Your task to perform on an android device: Clear the shopping cart on ebay.com. Add "usb-c to usb-a" to the cart on ebay.com, then select checkout. Image 0: 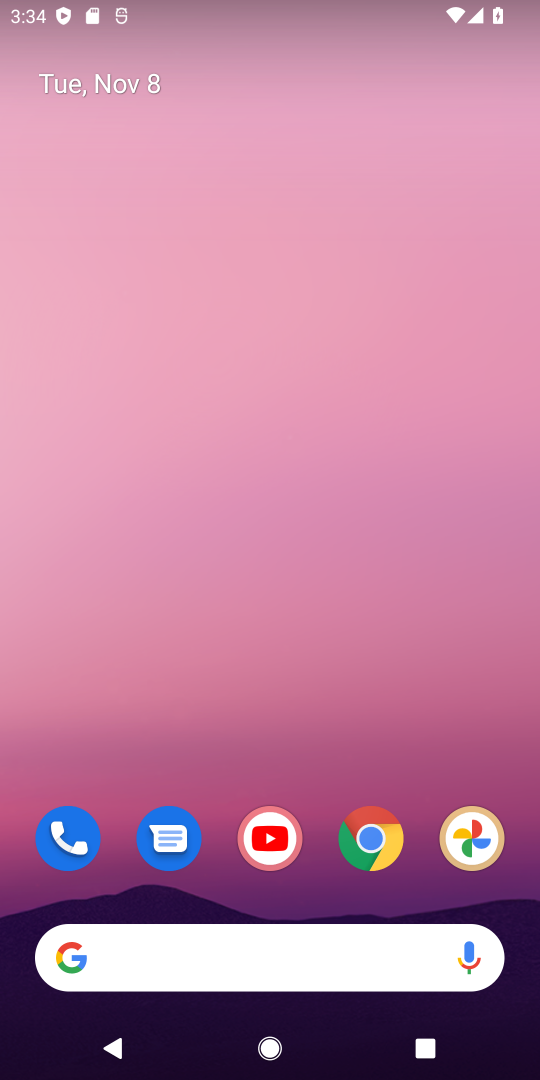
Step 0: drag from (334, 1013) to (211, 88)
Your task to perform on an android device: Clear the shopping cart on ebay.com. Add "usb-c to usb-a" to the cart on ebay.com, then select checkout. Image 1: 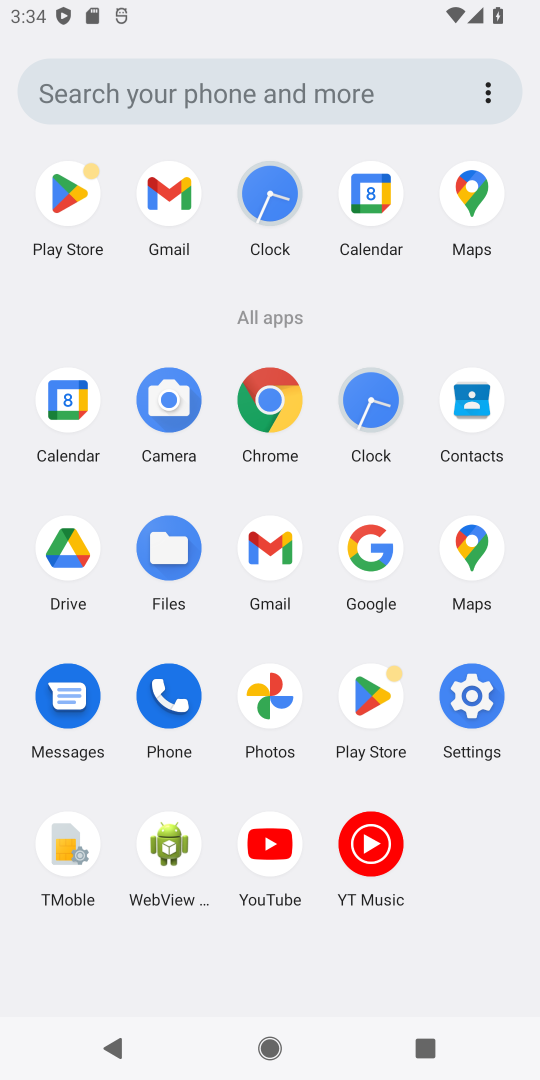
Step 1: click (266, 417)
Your task to perform on an android device: Clear the shopping cart on ebay.com. Add "usb-c to usb-a" to the cart on ebay.com, then select checkout. Image 2: 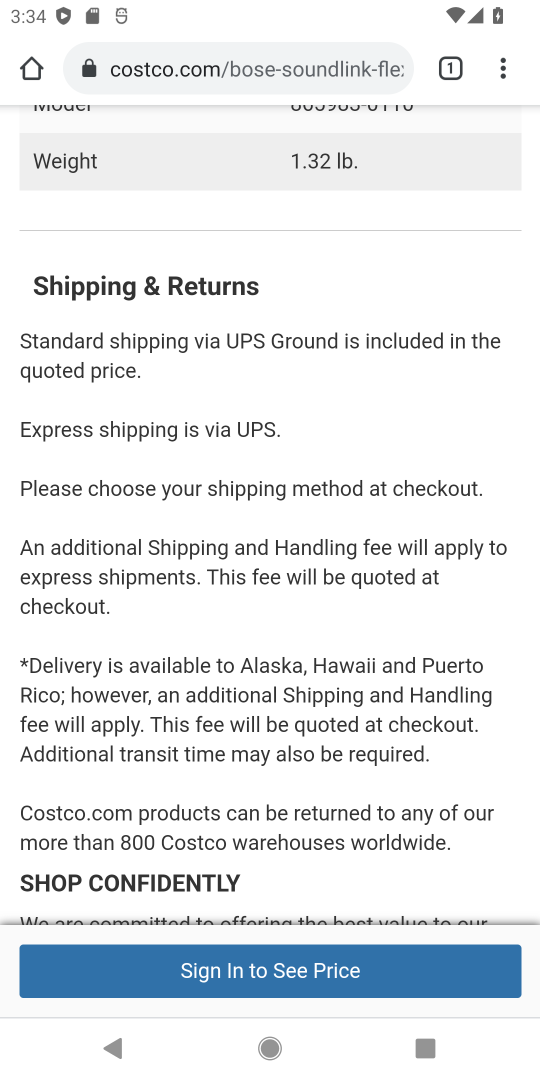
Step 2: click (212, 65)
Your task to perform on an android device: Clear the shopping cart on ebay.com. Add "usb-c to usb-a" to the cart on ebay.com, then select checkout. Image 3: 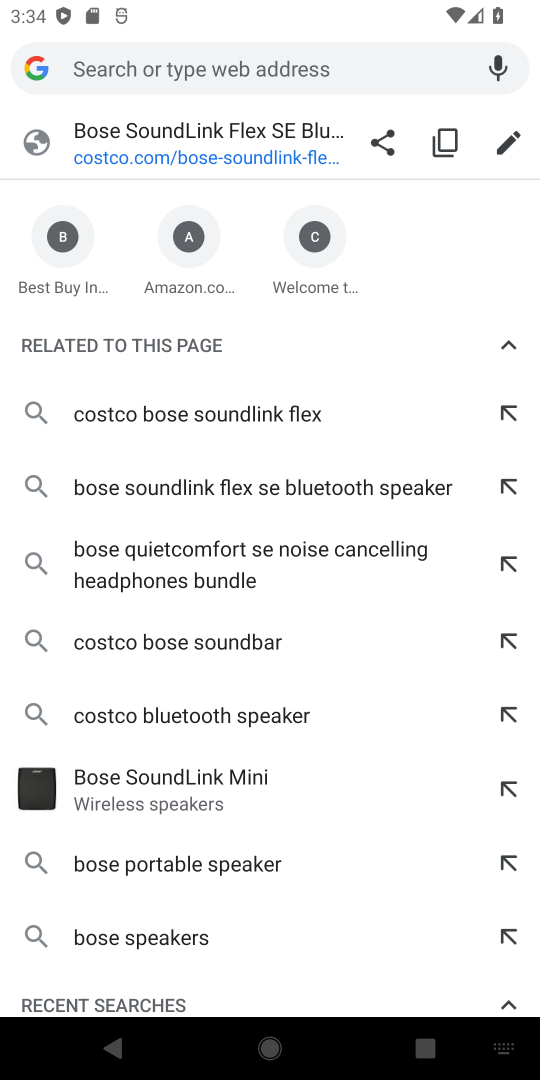
Step 3: type "ebay.com"
Your task to perform on an android device: Clear the shopping cart on ebay.com. Add "usb-c to usb-a" to the cart on ebay.com, then select checkout. Image 4: 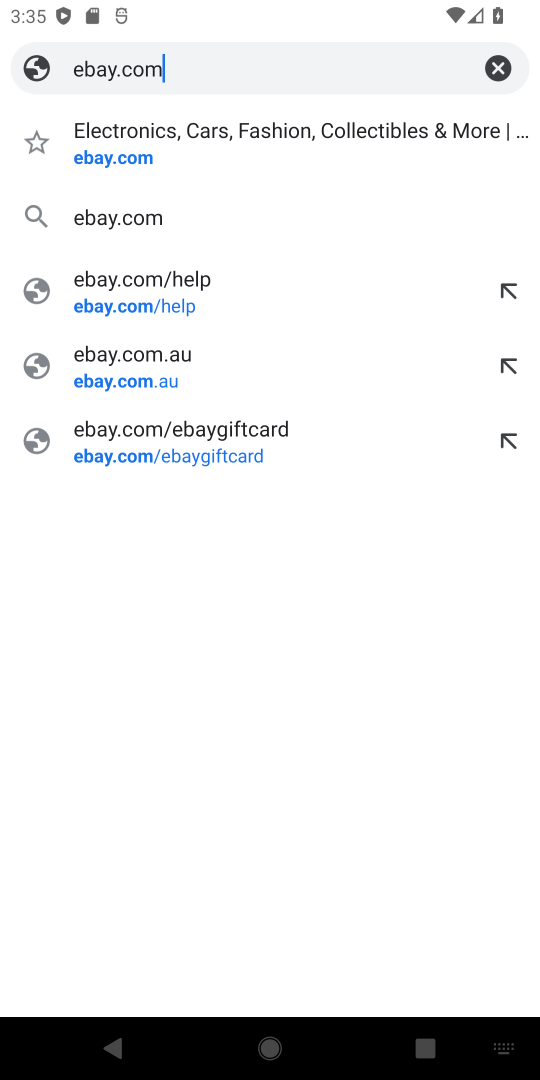
Step 4: click (101, 158)
Your task to perform on an android device: Clear the shopping cart on ebay.com. Add "usb-c to usb-a" to the cart on ebay.com, then select checkout. Image 5: 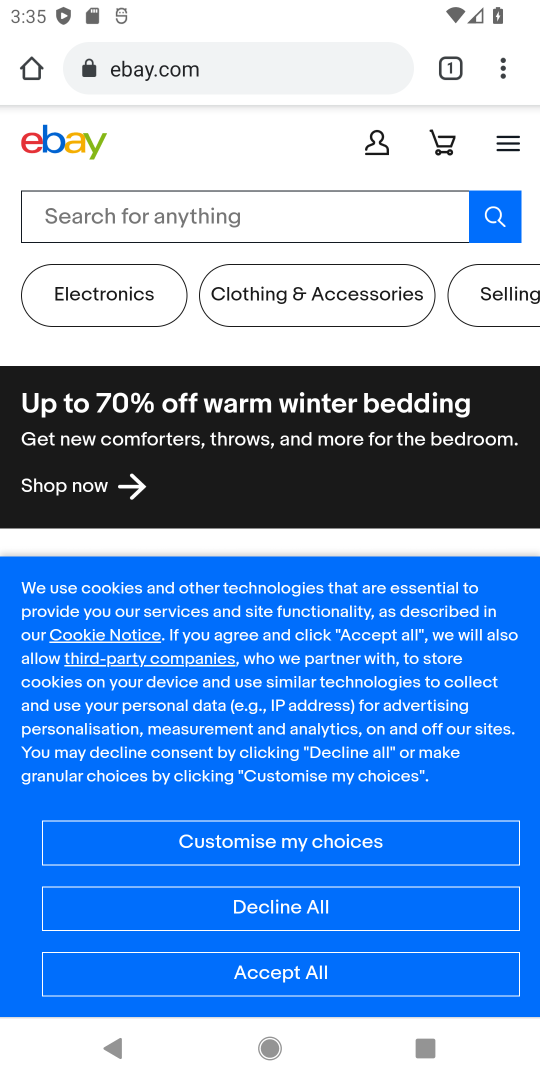
Step 5: click (300, 211)
Your task to perform on an android device: Clear the shopping cart on ebay.com. Add "usb-c to usb-a" to the cart on ebay.com, then select checkout. Image 6: 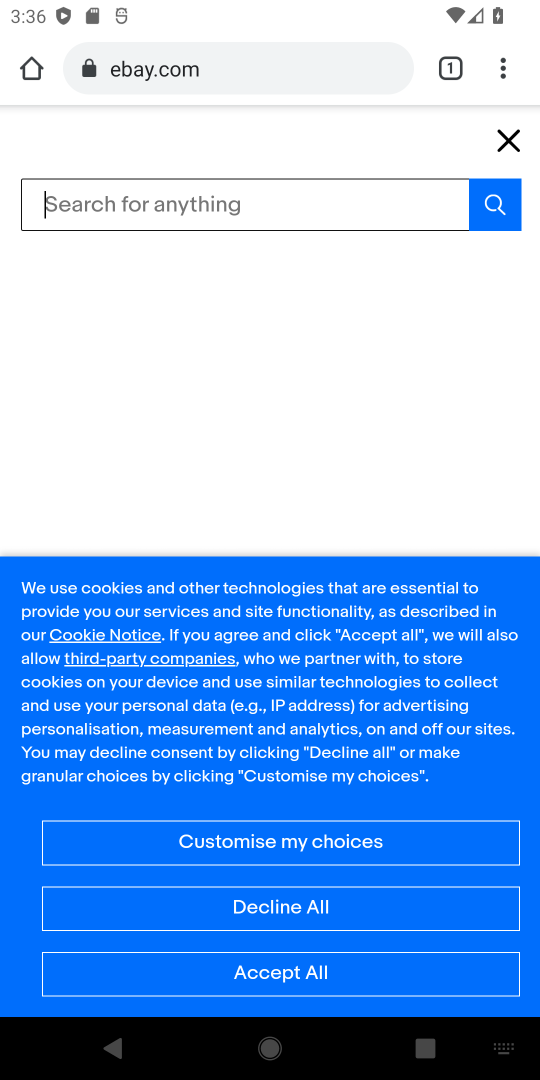
Step 6: type "usb-c to usb-a"
Your task to perform on an android device: Clear the shopping cart on ebay.com. Add "usb-c to usb-a" to the cart on ebay.com, then select checkout. Image 7: 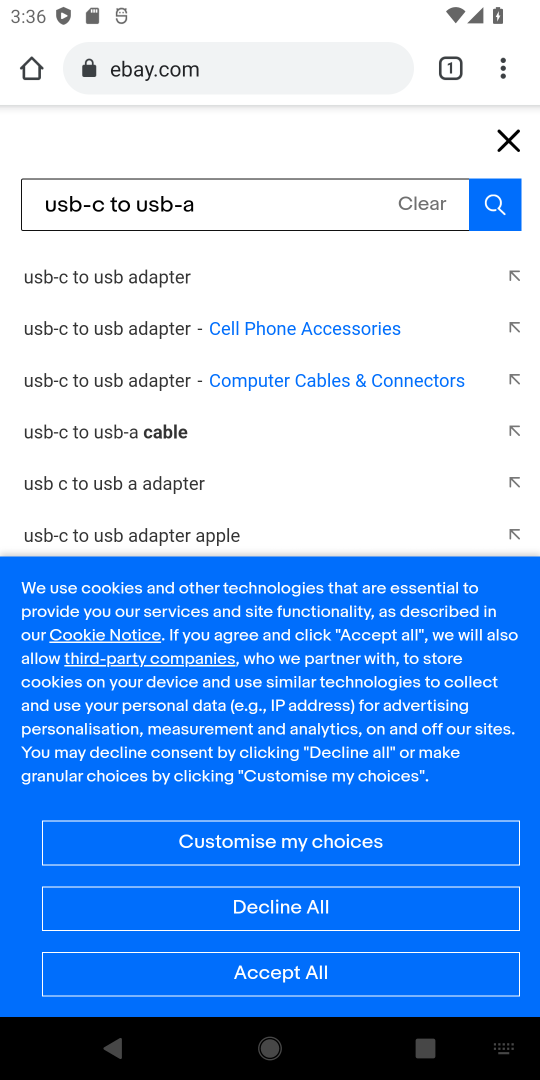
Step 7: click (81, 274)
Your task to perform on an android device: Clear the shopping cart on ebay.com. Add "usb-c to usb-a" to the cart on ebay.com, then select checkout. Image 8: 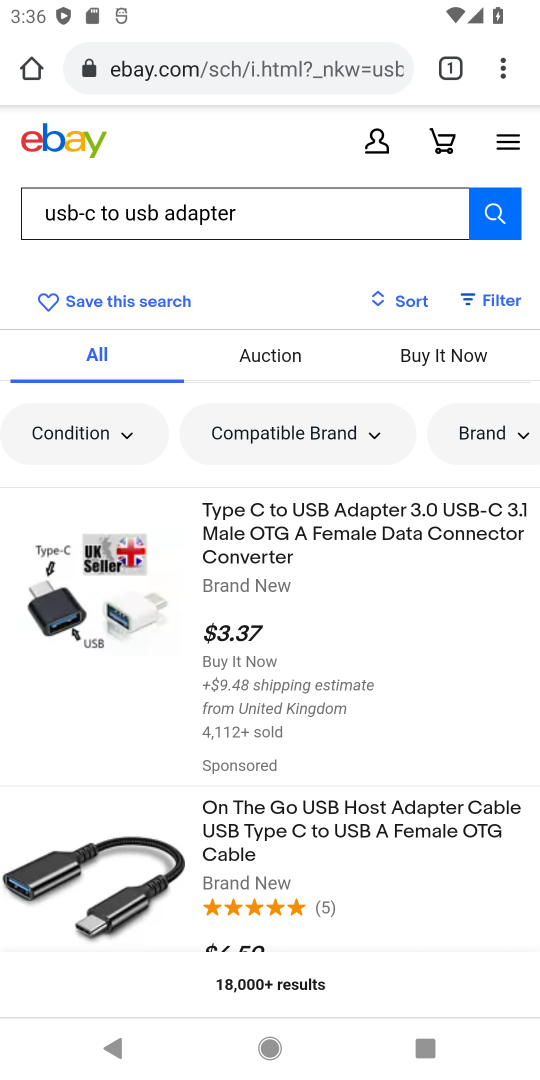
Step 8: click (165, 581)
Your task to perform on an android device: Clear the shopping cart on ebay.com. Add "usb-c to usb-a" to the cart on ebay.com, then select checkout. Image 9: 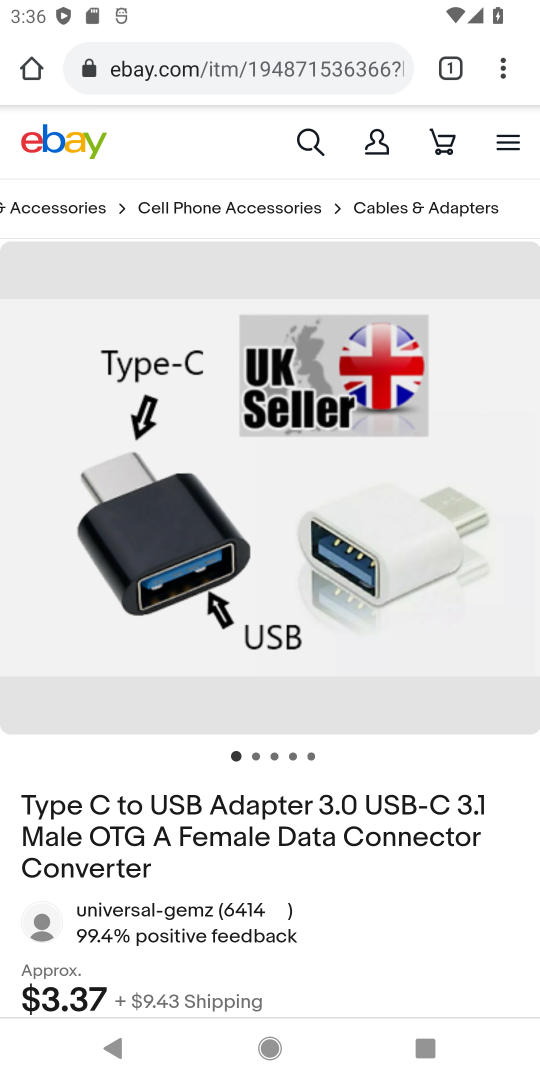
Step 9: drag from (336, 900) to (360, 419)
Your task to perform on an android device: Clear the shopping cart on ebay.com. Add "usb-c to usb-a" to the cart on ebay.com, then select checkout. Image 10: 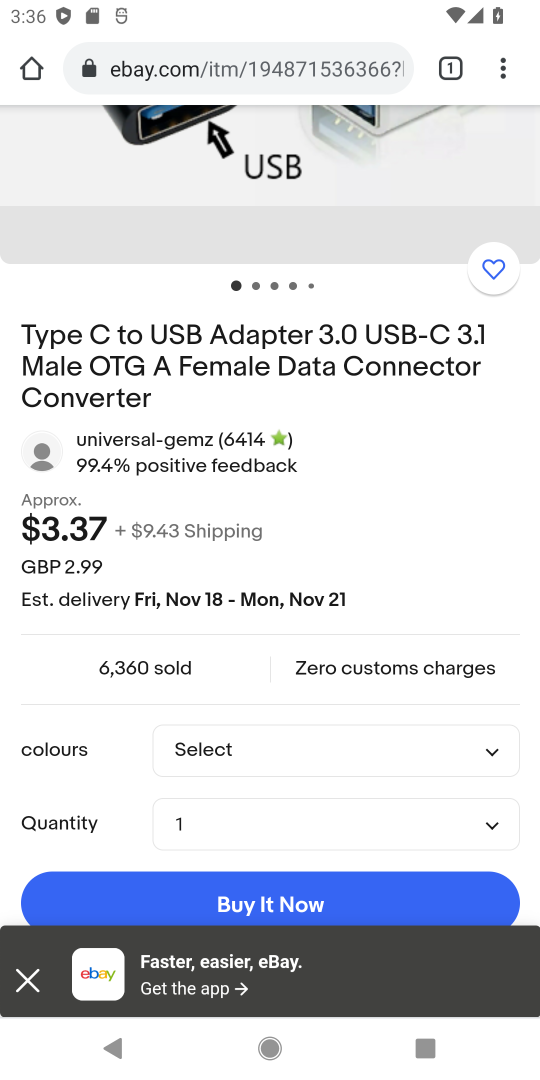
Step 10: drag from (391, 541) to (397, 235)
Your task to perform on an android device: Clear the shopping cart on ebay.com. Add "usb-c to usb-a" to the cart on ebay.com, then select checkout. Image 11: 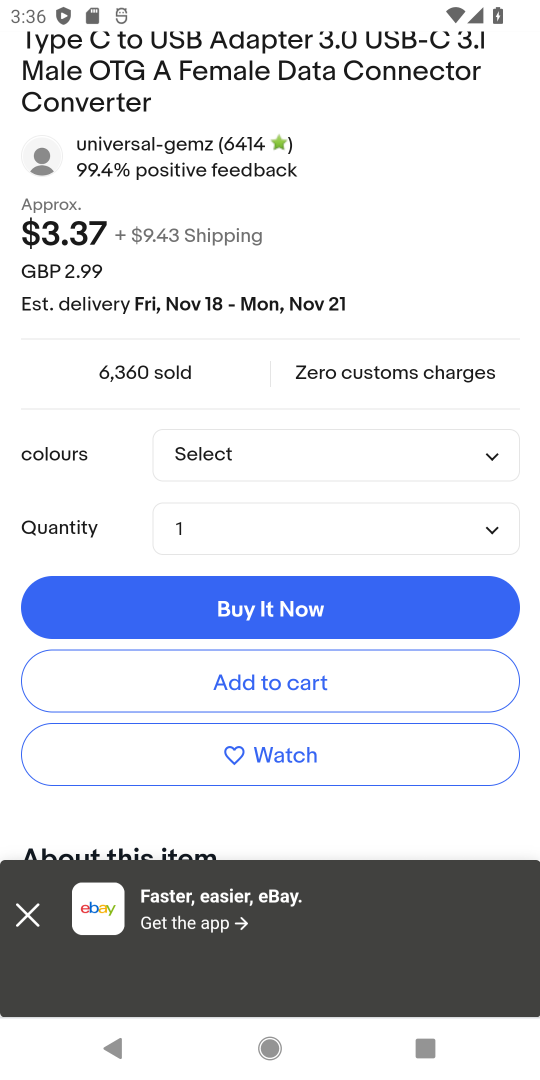
Step 11: click (276, 672)
Your task to perform on an android device: Clear the shopping cart on ebay.com. Add "usb-c to usb-a" to the cart on ebay.com, then select checkout. Image 12: 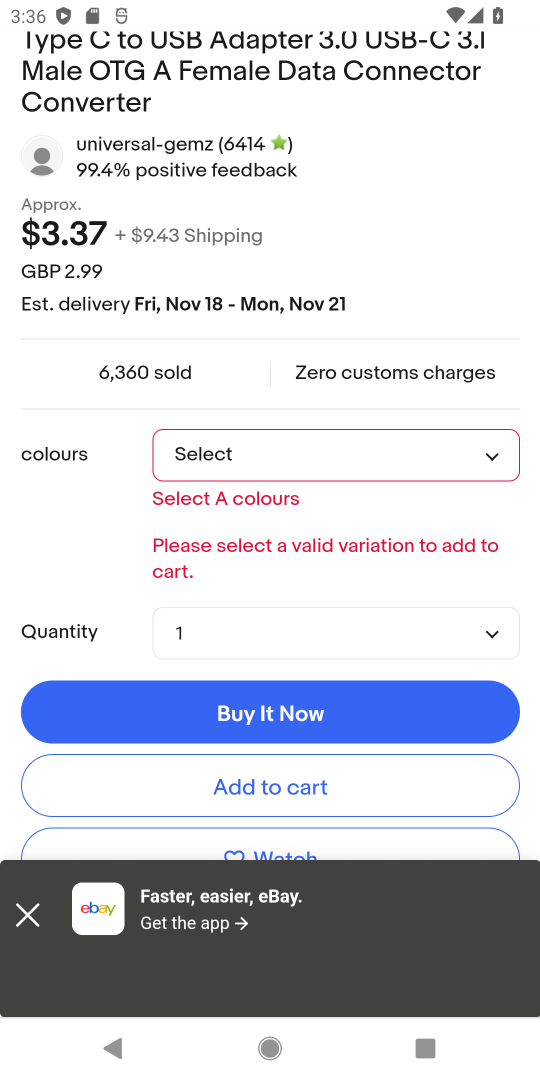
Step 12: click (268, 788)
Your task to perform on an android device: Clear the shopping cart on ebay.com. Add "usb-c to usb-a" to the cart on ebay.com, then select checkout. Image 13: 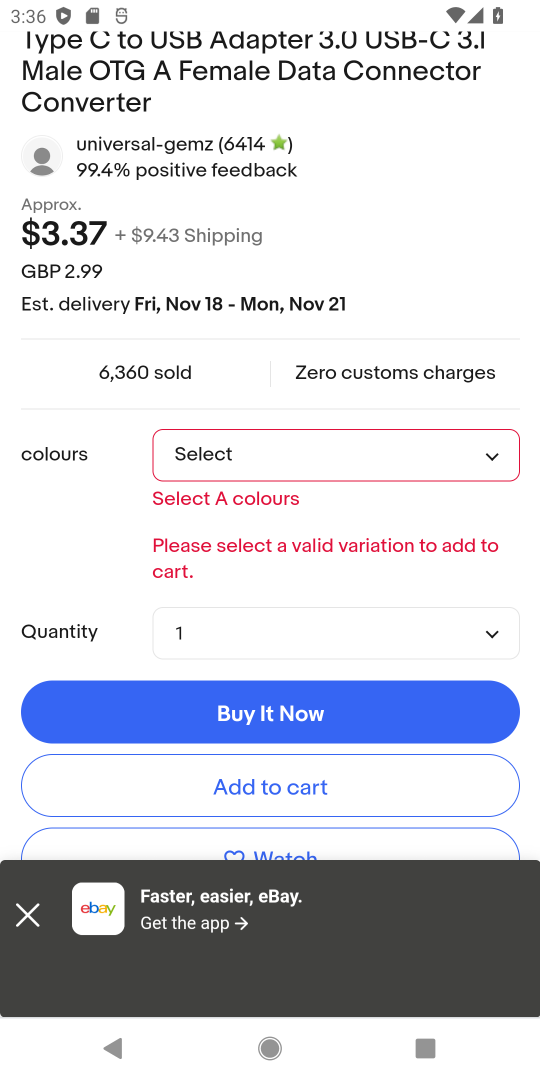
Step 13: click (277, 782)
Your task to perform on an android device: Clear the shopping cart on ebay.com. Add "usb-c to usb-a" to the cart on ebay.com, then select checkout. Image 14: 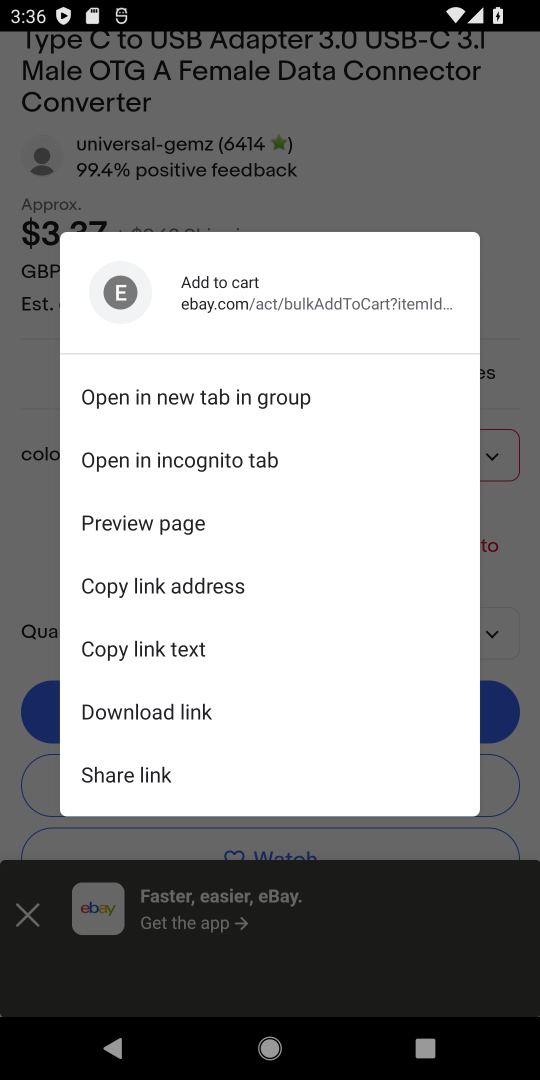
Step 14: click (486, 213)
Your task to perform on an android device: Clear the shopping cart on ebay.com. Add "usb-c to usb-a" to the cart on ebay.com, then select checkout. Image 15: 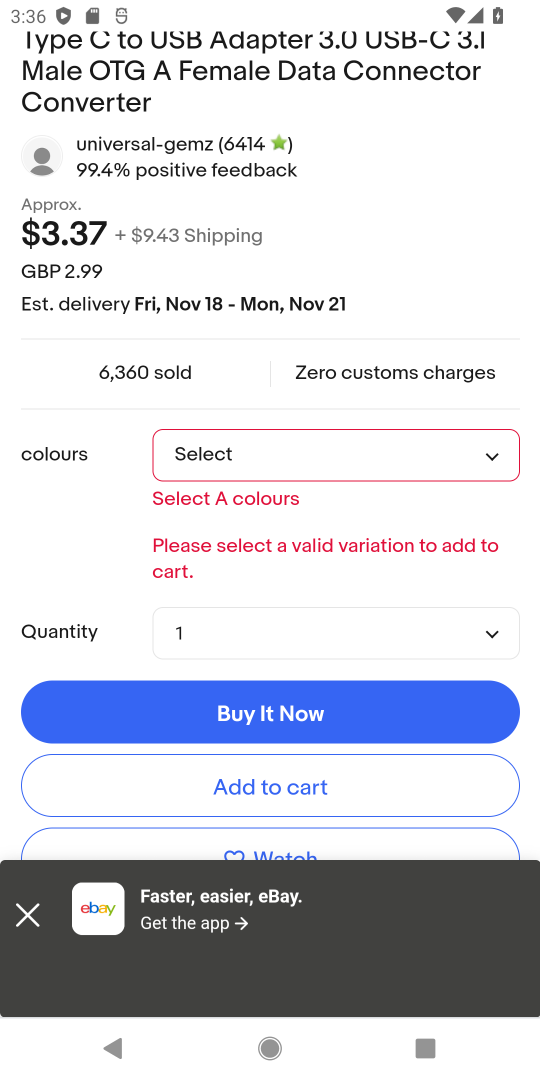
Step 15: click (253, 785)
Your task to perform on an android device: Clear the shopping cart on ebay.com. Add "usb-c to usb-a" to the cart on ebay.com, then select checkout. Image 16: 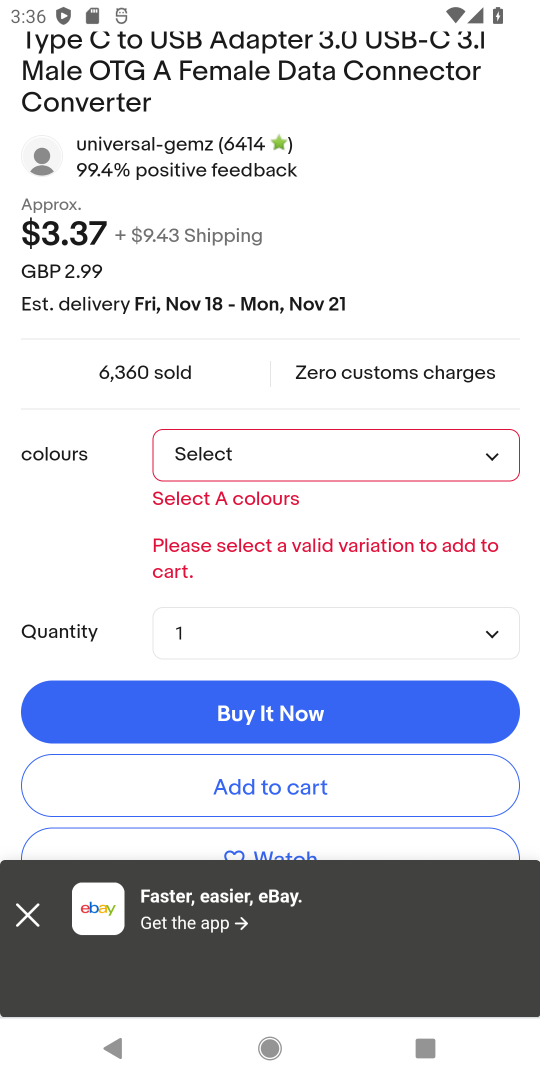
Step 16: click (289, 793)
Your task to perform on an android device: Clear the shopping cart on ebay.com. Add "usb-c to usb-a" to the cart on ebay.com, then select checkout. Image 17: 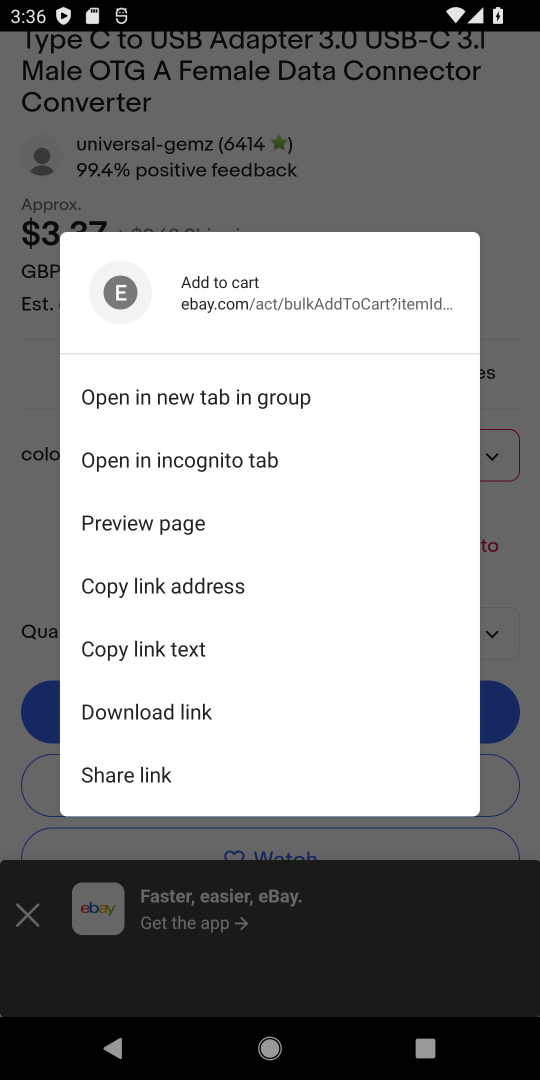
Step 17: click (489, 125)
Your task to perform on an android device: Clear the shopping cart on ebay.com. Add "usb-c to usb-a" to the cart on ebay.com, then select checkout. Image 18: 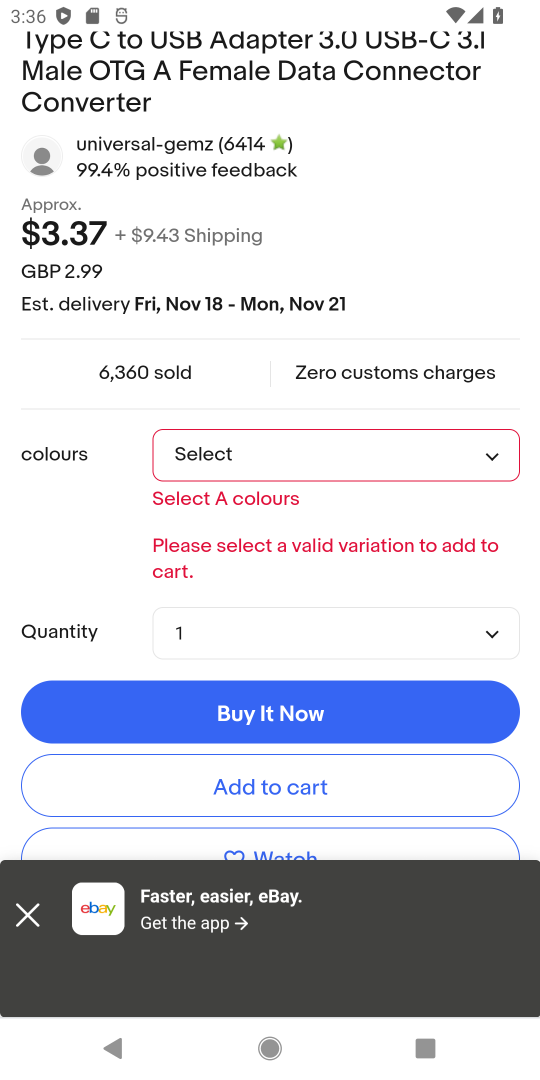
Step 18: press back button
Your task to perform on an android device: Clear the shopping cart on ebay.com. Add "usb-c to usb-a" to the cart on ebay.com, then select checkout. Image 19: 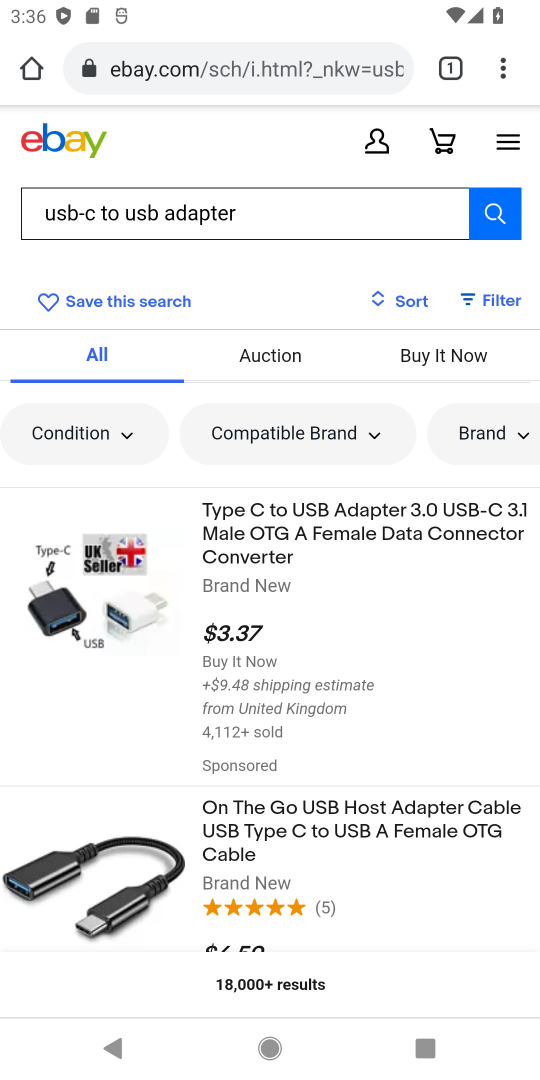
Step 19: click (161, 565)
Your task to perform on an android device: Clear the shopping cart on ebay.com. Add "usb-c to usb-a" to the cart on ebay.com, then select checkout. Image 20: 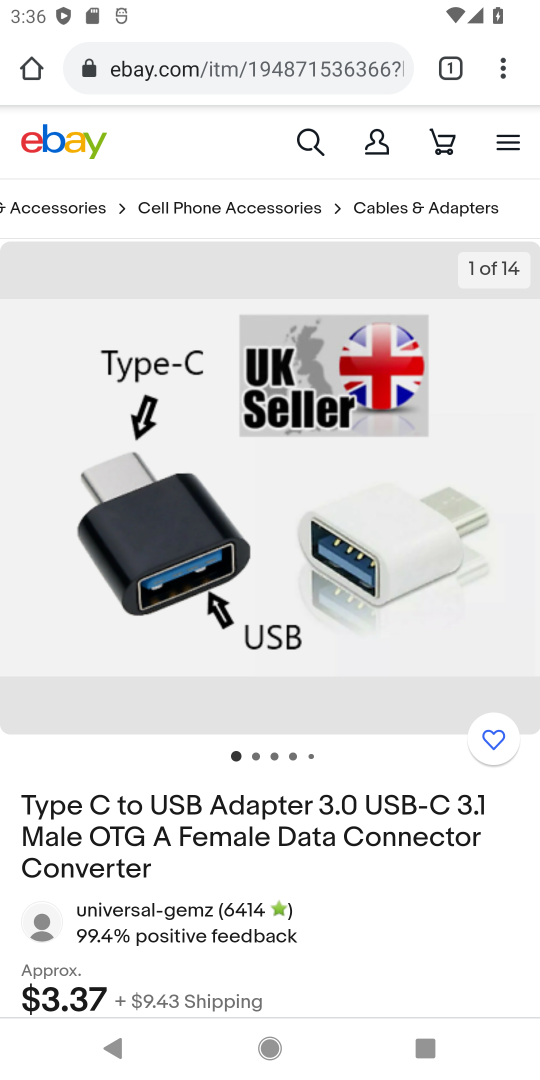
Step 20: drag from (293, 912) to (358, 369)
Your task to perform on an android device: Clear the shopping cart on ebay.com. Add "usb-c to usb-a" to the cart on ebay.com, then select checkout. Image 21: 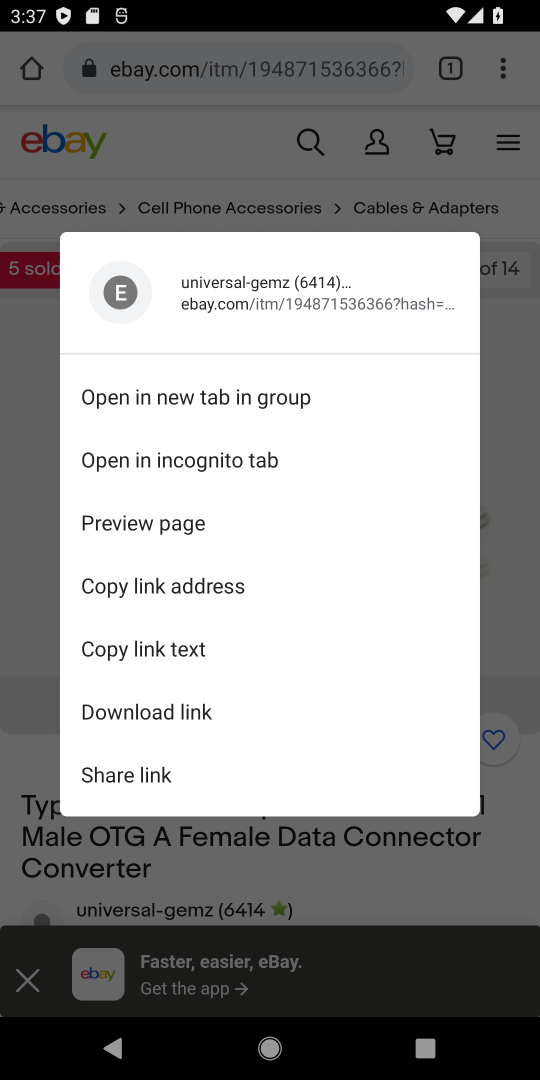
Step 21: click (510, 481)
Your task to perform on an android device: Clear the shopping cart on ebay.com. Add "usb-c to usb-a" to the cart on ebay.com, then select checkout. Image 22: 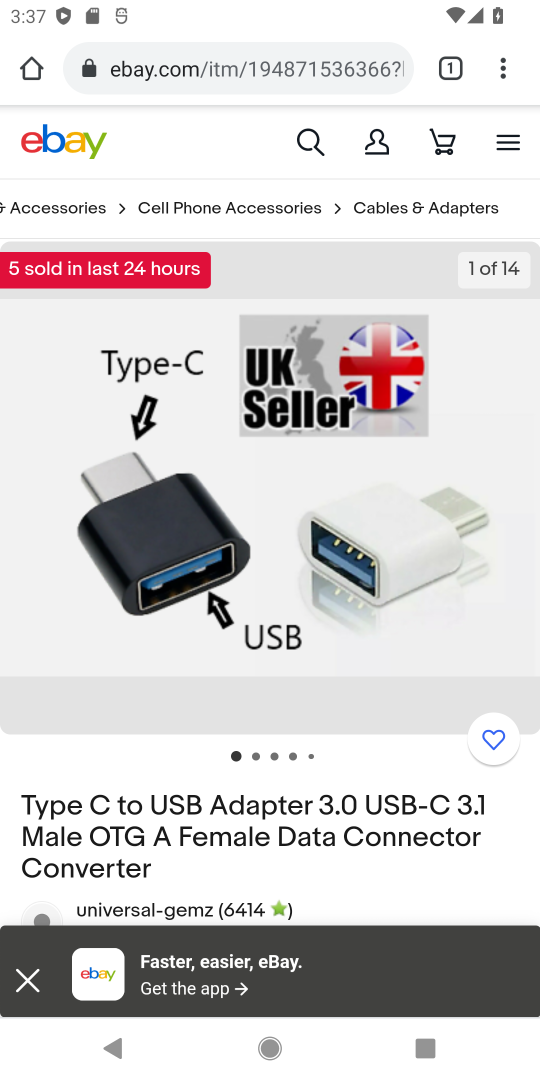
Step 22: drag from (352, 877) to (386, 294)
Your task to perform on an android device: Clear the shopping cart on ebay.com. Add "usb-c to usb-a" to the cart on ebay.com, then select checkout. Image 23: 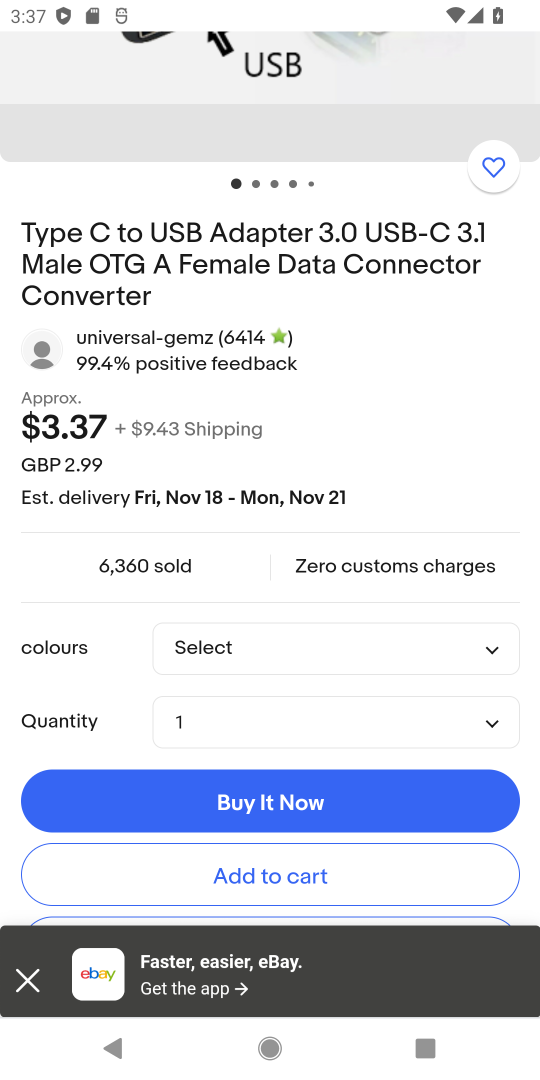
Step 23: click (286, 867)
Your task to perform on an android device: Clear the shopping cart on ebay.com. Add "usb-c to usb-a" to the cart on ebay.com, then select checkout. Image 24: 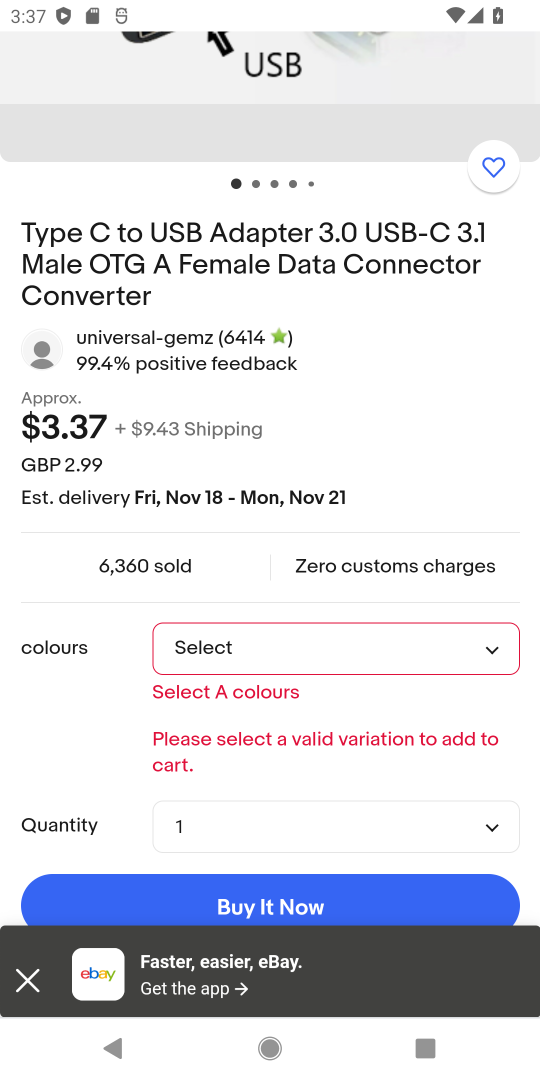
Step 24: drag from (360, 482) to (392, 119)
Your task to perform on an android device: Clear the shopping cart on ebay.com. Add "usb-c to usb-a" to the cart on ebay.com, then select checkout. Image 25: 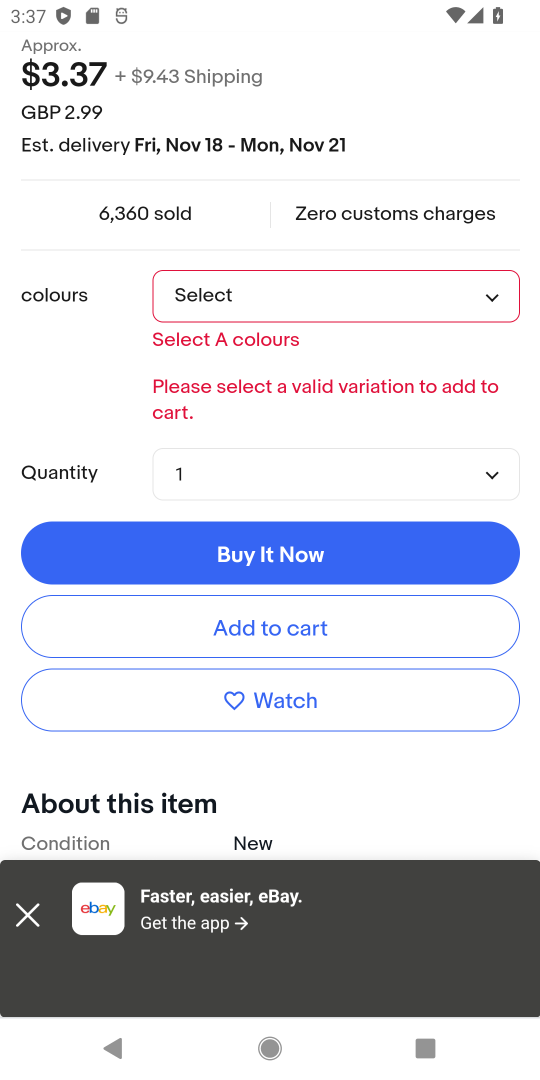
Step 25: click (489, 289)
Your task to perform on an android device: Clear the shopping cart on ebay.com. Add "usb-c to usb-a" to the cart on ebay.com, then select checkout. Image 26: 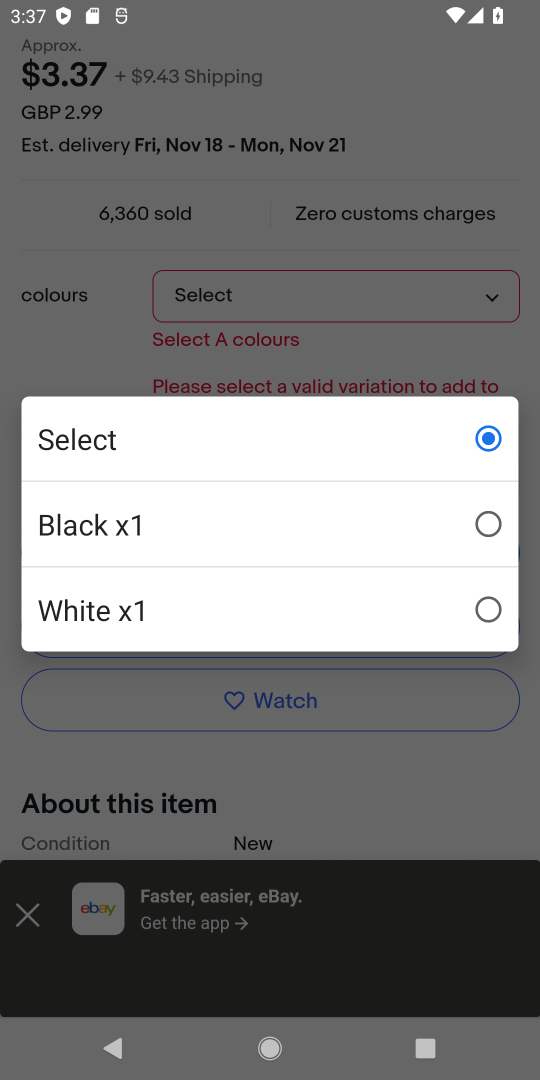
Step 26: click (361, 499)
Your task to perform on an android device: Clear the shopping cart on ebay.com. Add "usb-c to usb-a" to the cart on ebay.com, then select checkout. Image 27: 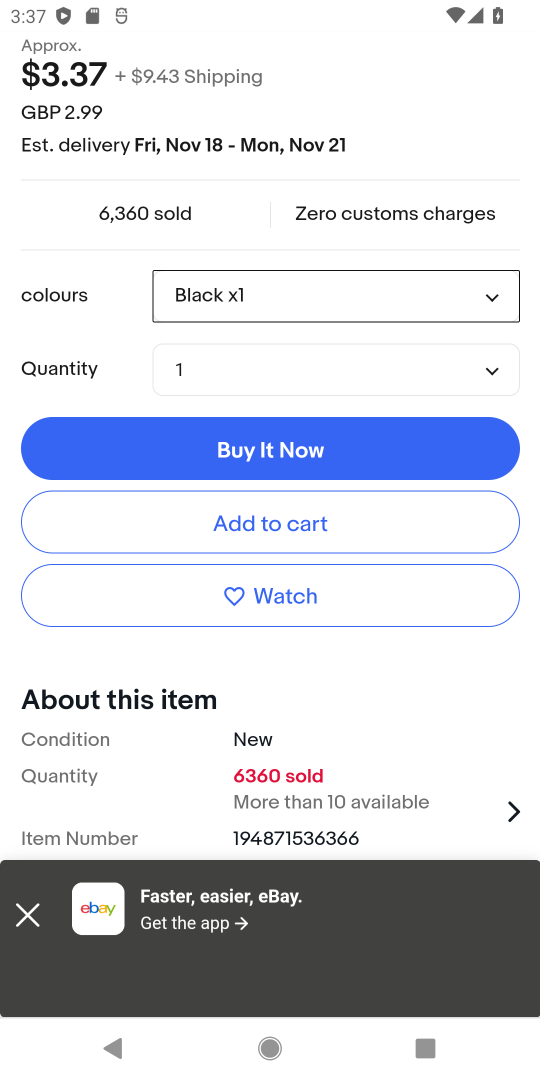
Step 27: click (307, 521)
Your task to perform on an android device: Clear the shopping cart on ebay.com. Add "usb-c to usb-a" to the cart on ebay.com, then select checkout. Image 28: 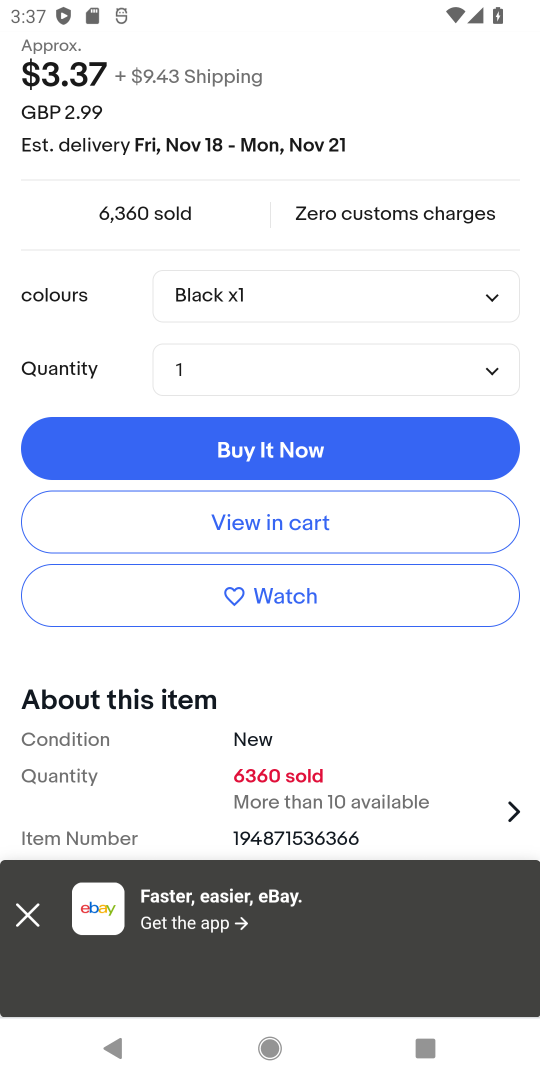
Step 28: task complete